Your task to perform on an android device: create a new album in the google photos Image 0: 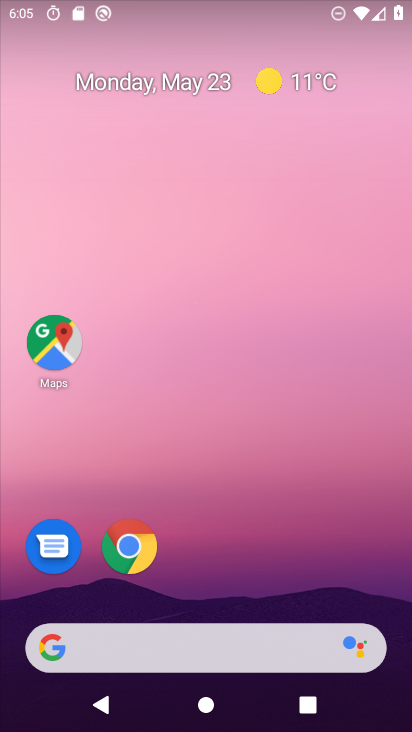
Step 0: drag from (270, 563) to (302, 223)
Your task to perform on an android device: create a new album in the google photos Image 1: 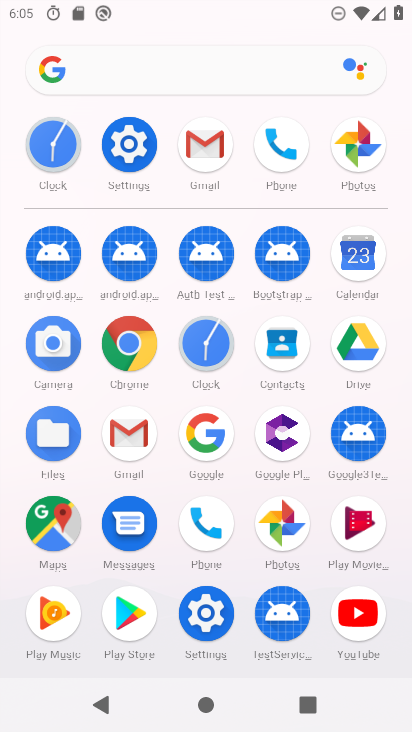
Step 1: click (282, 531)
Your task to perform on an android device: create a new album in the google photos Image 2: 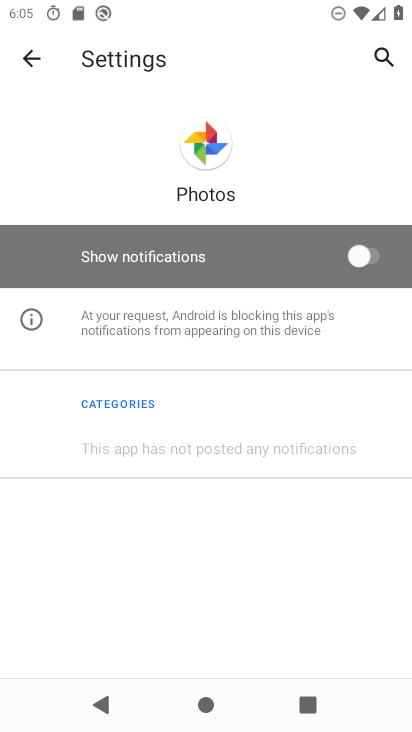
Step 2: click (28, 61)
Your task to perform on an android device: create a new album in the google photos Image 3: 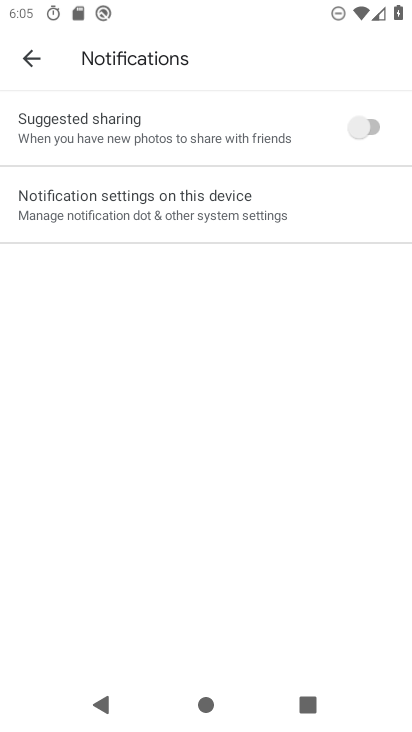
Step 3: click (28, 61)
Your task to perform on an android device: create a new album in the google photos Image 4: 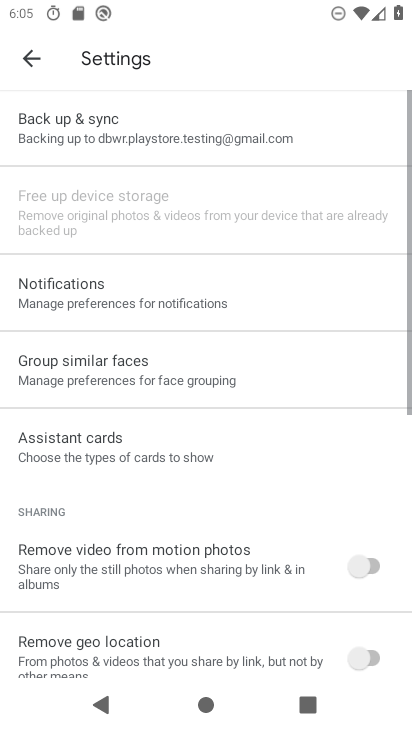
Step 4: click (28, 61)
Your task to perform on an android device: create a new album in the google photos Image 5: 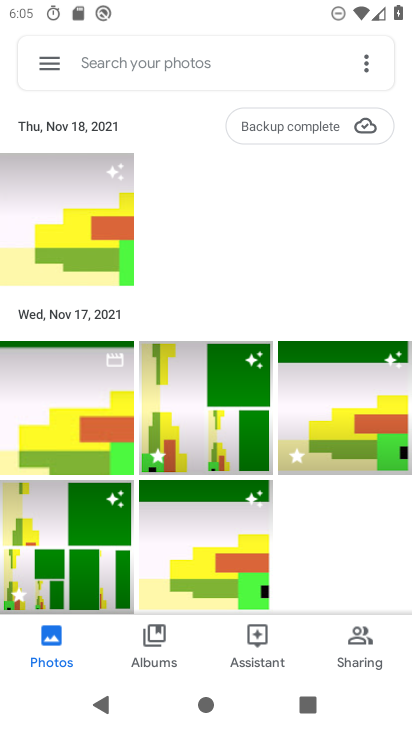
Step 5: click (369, 59)
Your task to perform on an android device: create a new album in the google photos Image 6: 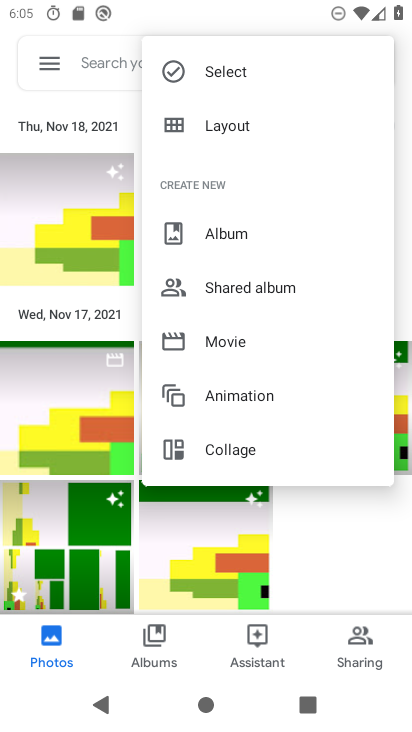
Step 6: click (209, 238)
Your task to perform on an android device: create a new album in the google photos Image 7: 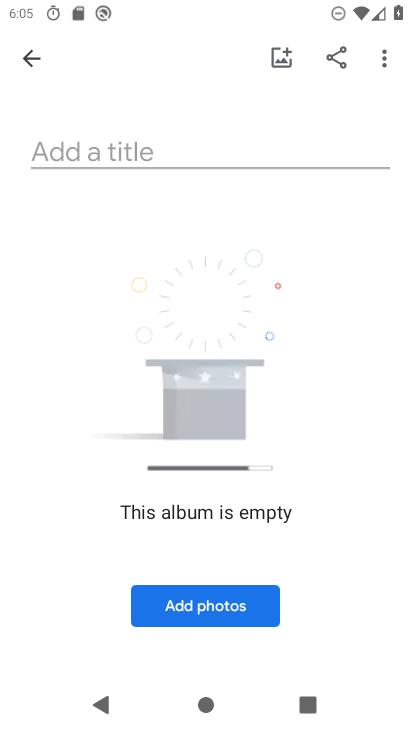
Step 7: click (156, 153)
Your task to perform on an android device: create a new album in the google photos Image 8: 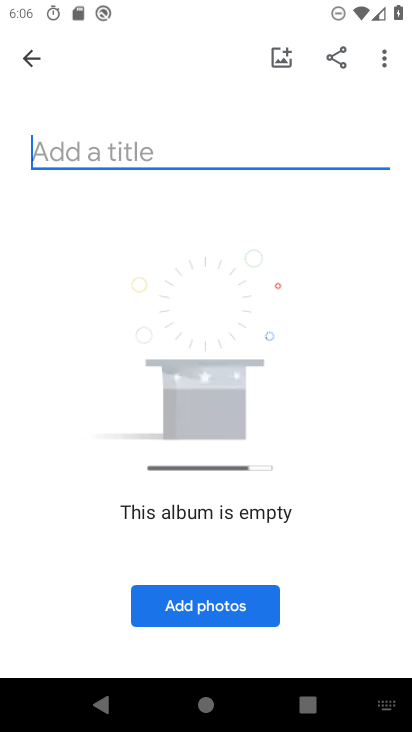
Step 8: type "ghvg"
Your task to perform on an android device: create a new album in the google photos Image 9: 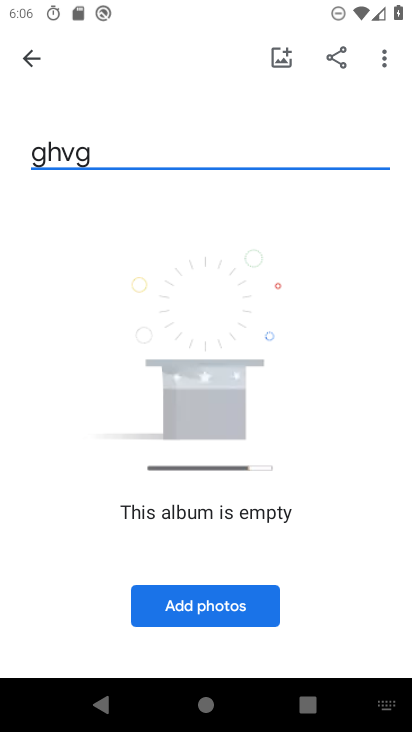
Step 9: click (237, 602)
Your task to perform on an android device: create a new album in the google photos Image 10: 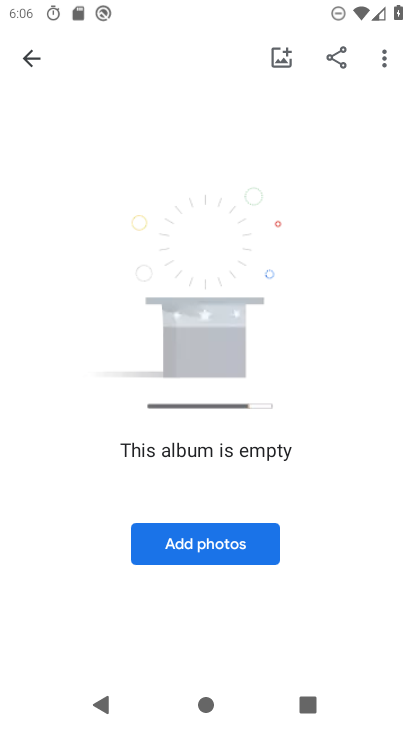
Step 10: click (235, 531)
Your task to perform on an android device: create a new album in the google photos Image 11: 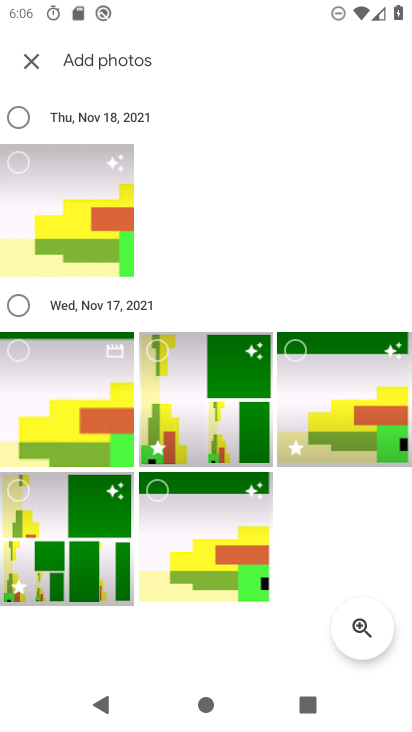
Step 11: click (15, 310)
Your task to perform on an android device: create a new album in the google photos Image 12: 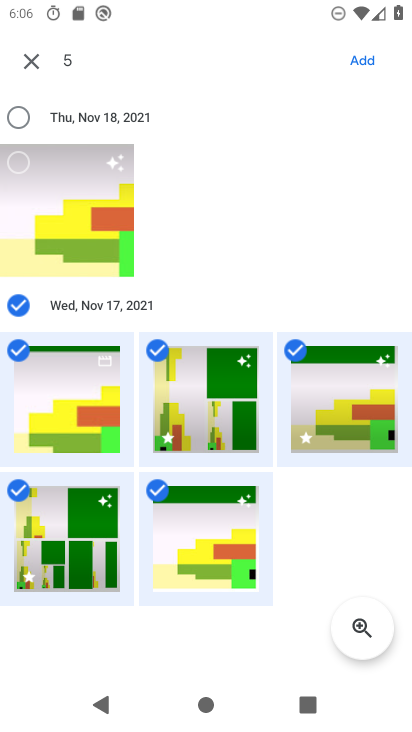
Step 12: click (361, 56)
Your task to perform on an android device: create a new album in the google photos Image 13: 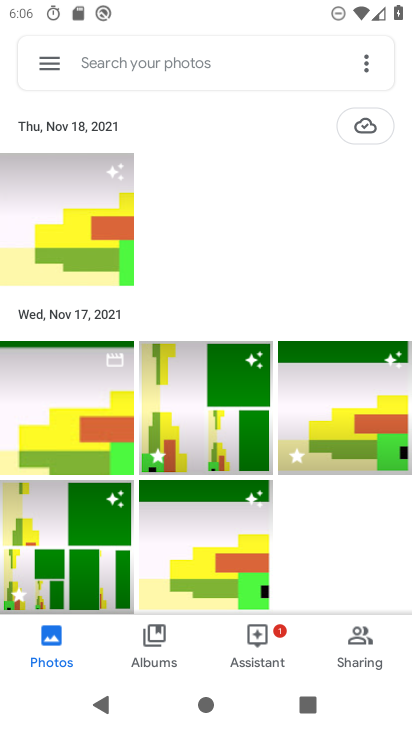
Step 13: task complete